Your task to perform on an android device: create a new album in the google photos Image 0: 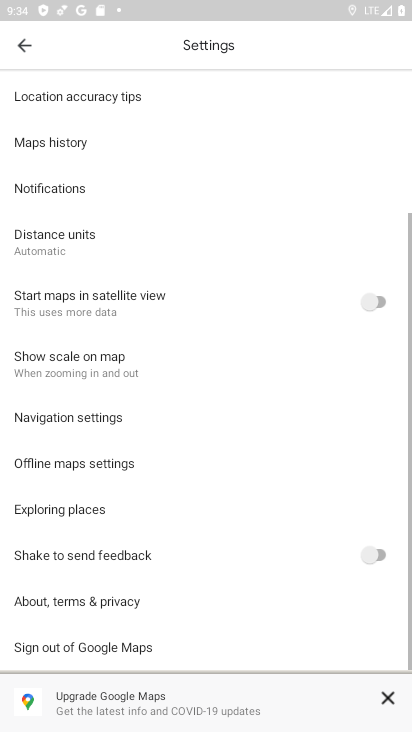
Step 0: press home button
Your task to perform on an android device: create a new album in the google photos Image 1: 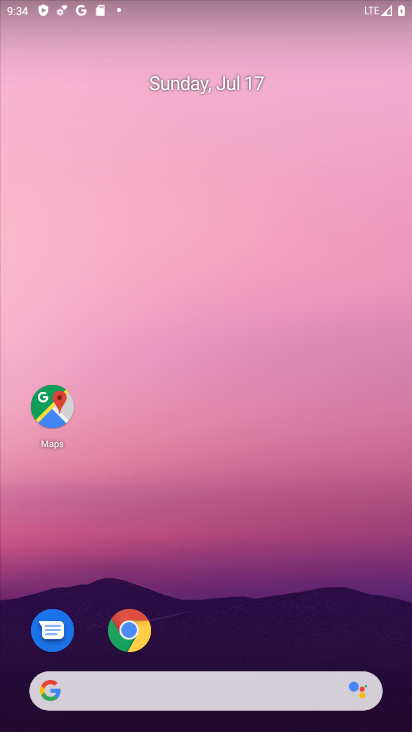
Step 1: drag from (212, 654) to (95, 1)
Your task to perform on an android device: create a new album in the google photos Image 2: 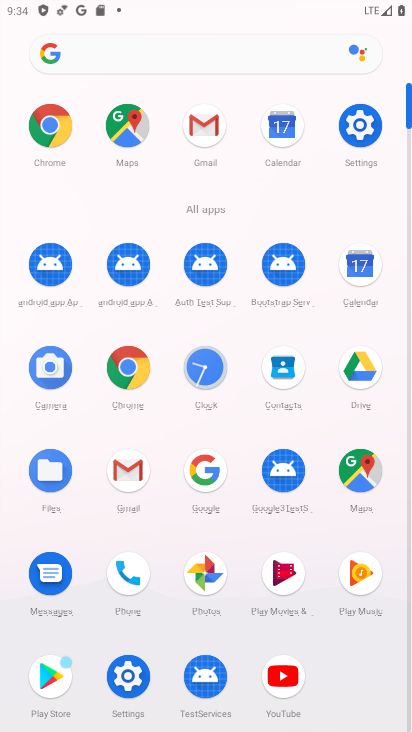
Step 2: click (197, 573)
Your task to perform on an android device: create a new album in the google photos Image 3: 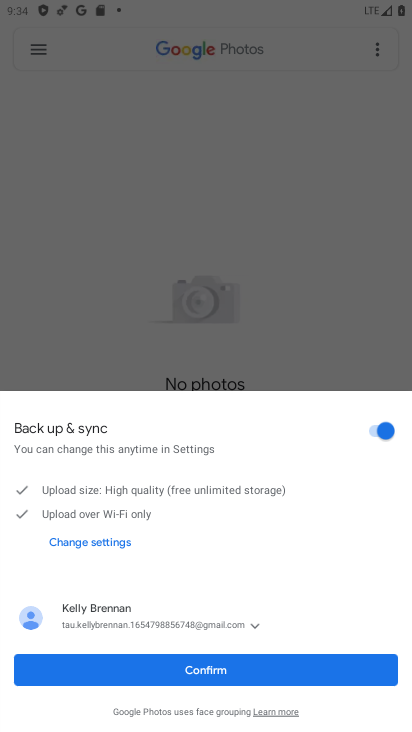
Step 3: click (207, 671)
Your task to perform on an android device: create a new album in the google photos Image 4: 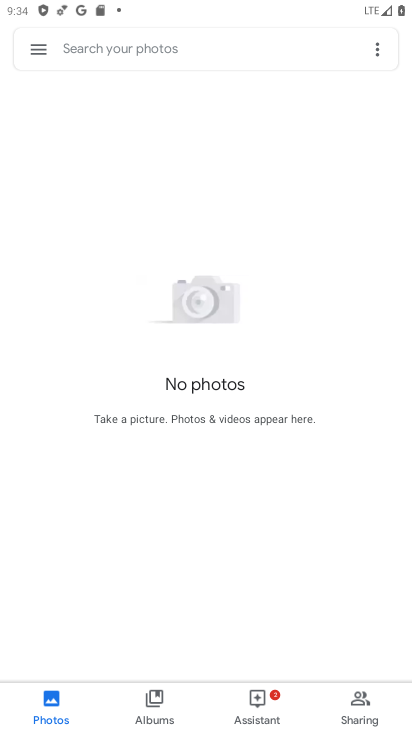
Step 4: click (376, 50)
Your task to perform on an android device: create a new album in the google photos Image 5: 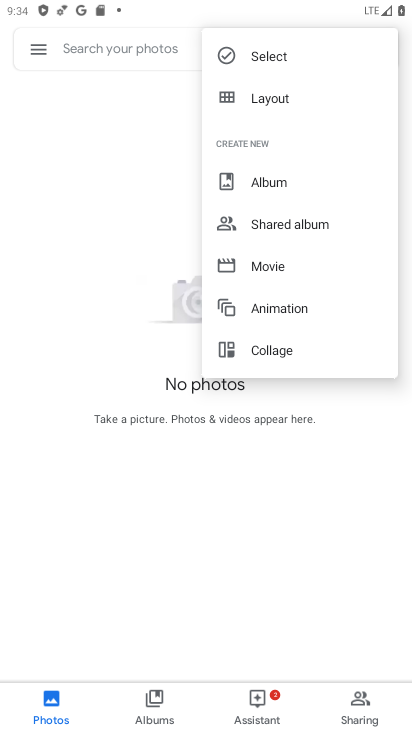
Step 5: click (288, 176)
Your task to perform on an android device: create a new album in the google photos Image 6: 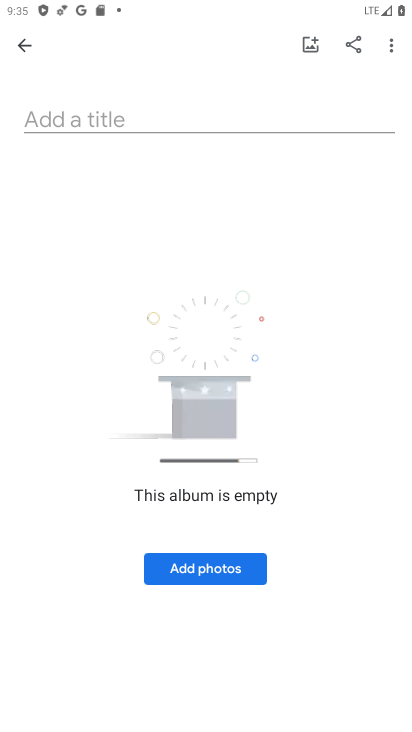
Step 6: click (198, 571)
Your task to perform on an android device: create a new album in the google photos Image 7: 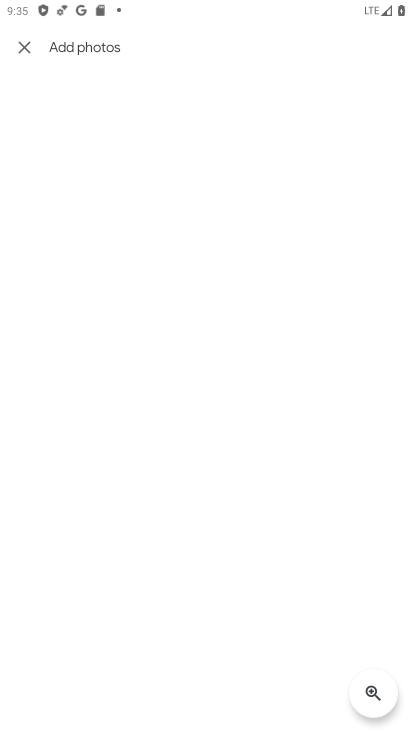
Step 7: task complete